Your task to perform on an android device: Search for the best rated headphones on Amazon Image 0: 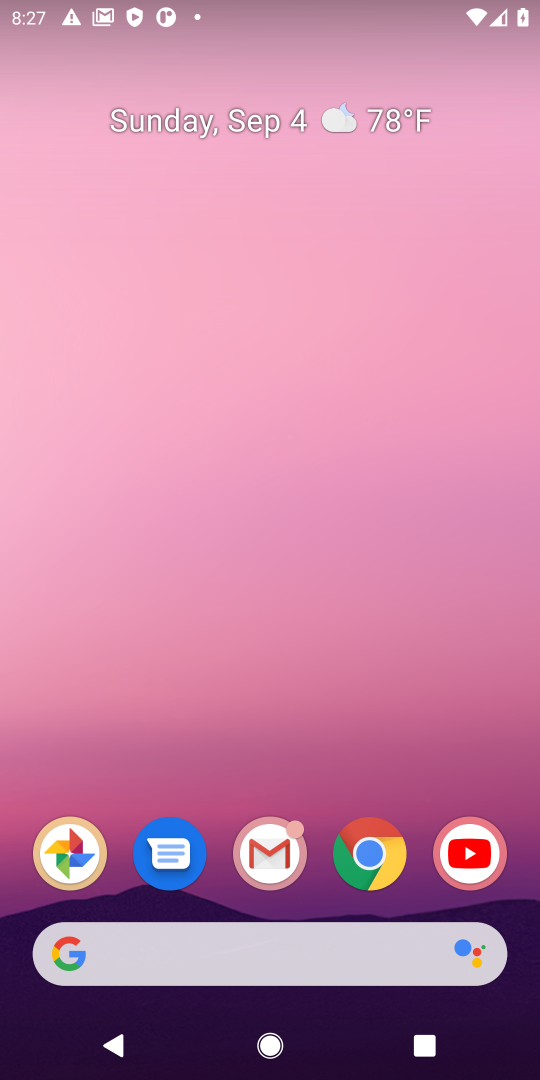
Step 0: drag from (317, 640) to (280, 9)
Your task to perform on an android device: Search for the best rated headphones on Amazon Image 1: 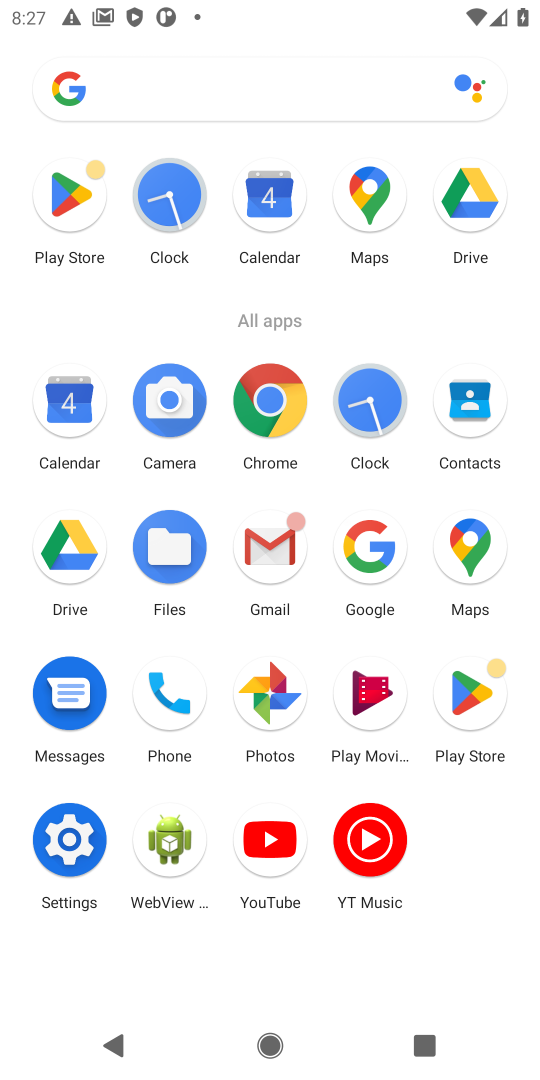
Step 1: click (273, 391)
Your task to perform on an android device: Search for the best rated headphones on Amazon Image 2: 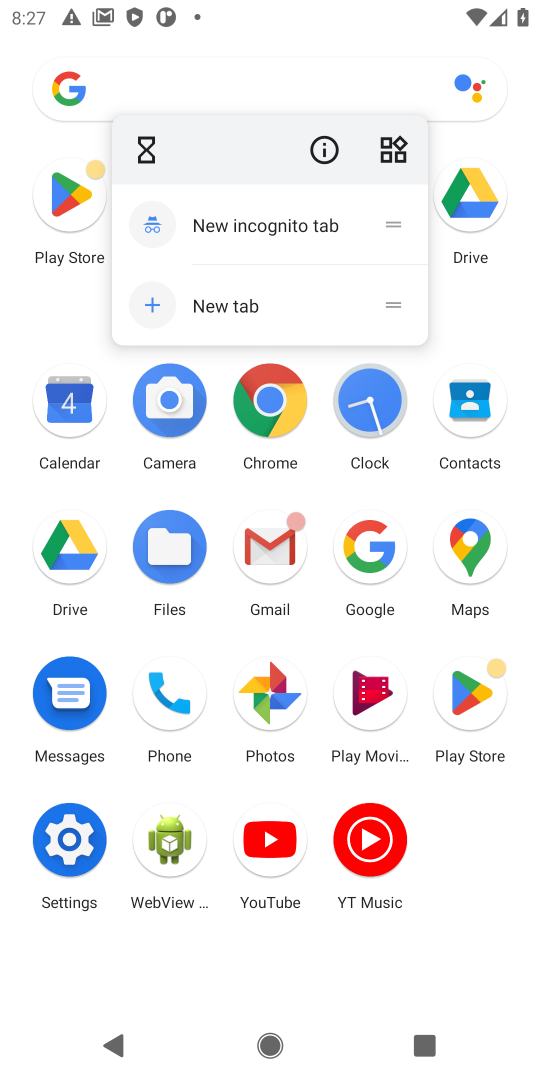
Step 2: click (263, 389)
Your task to perform on an android device: Search for the best rated headphones on Amazon Image 3: 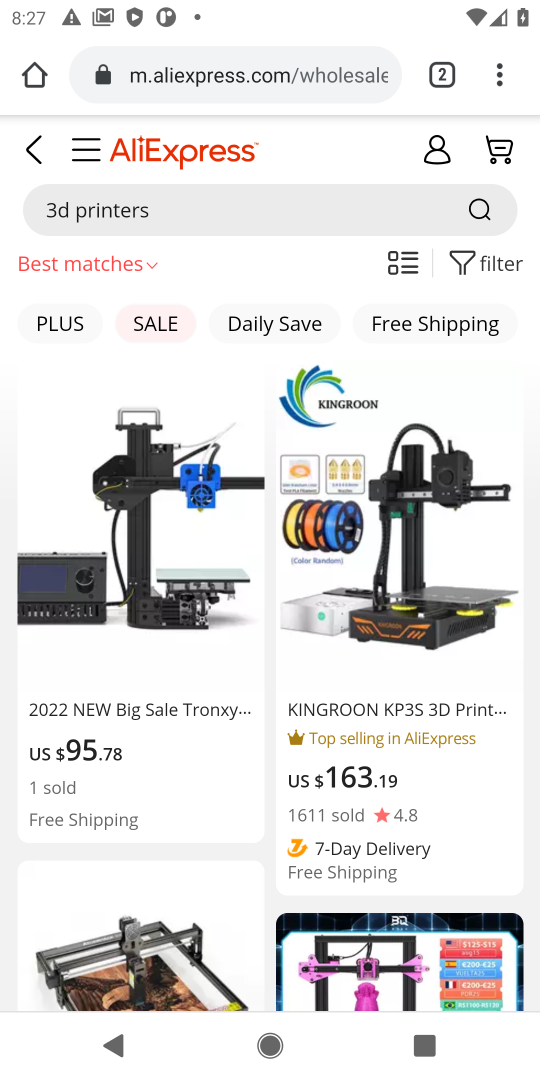
Step 3: click (281, 66)
Your task to perform on an android device: Search for the best rated headphones on Amazon Image 4: 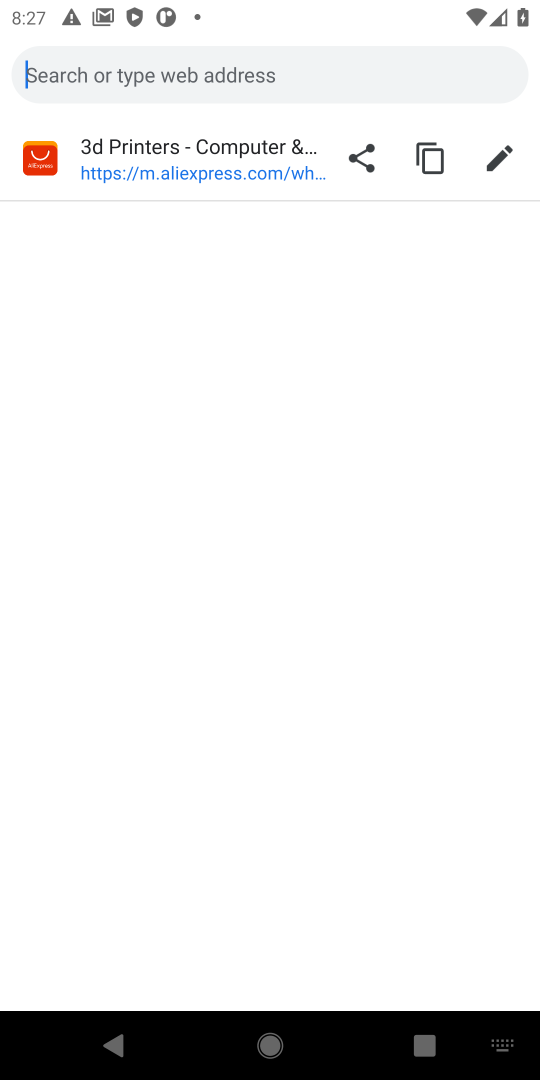
Step 4: type "best rated headphones on Amazon"
Your task to perform on an android device: Search for the best rated headphones on Amazon Image 5: 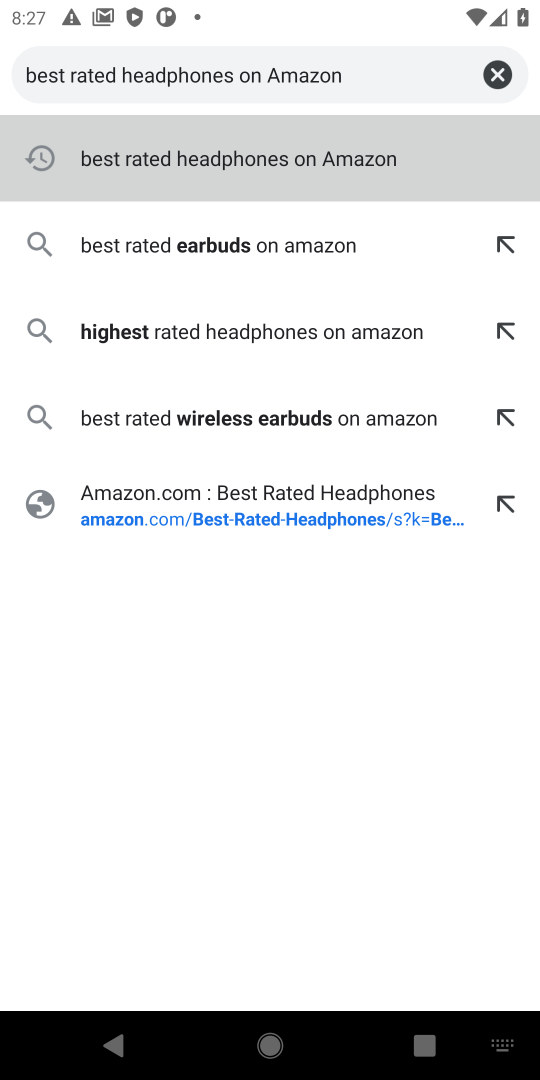
Step 5: click (157, 172)
Your task to perform on an android device: Search for the best rated headphones on Amazon Image 6: 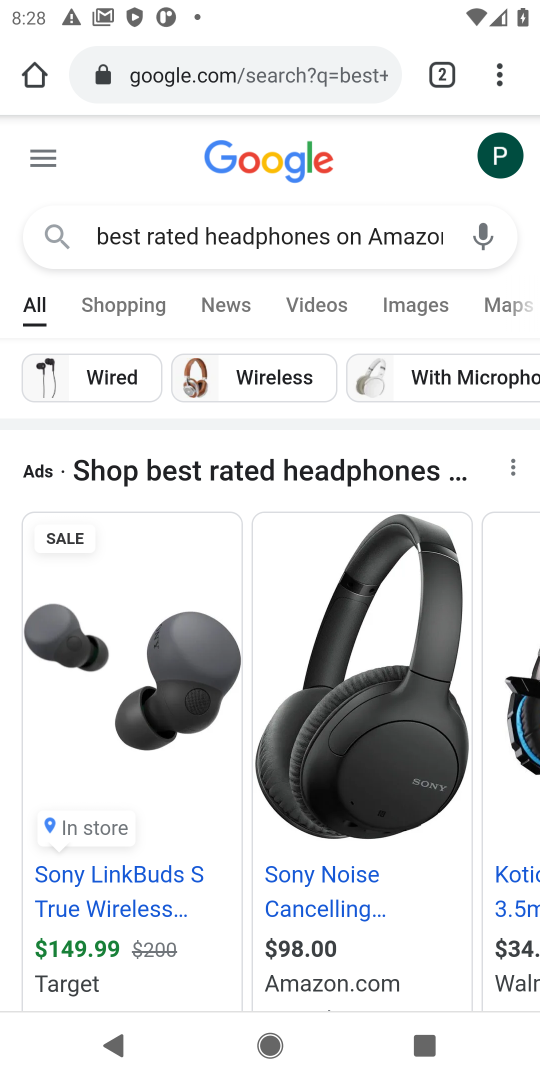
Step 6: drag from (247, 982) to (282, 436)
Your task to perform on an android device: Search for the best rated headphones on Amazon Image 7: 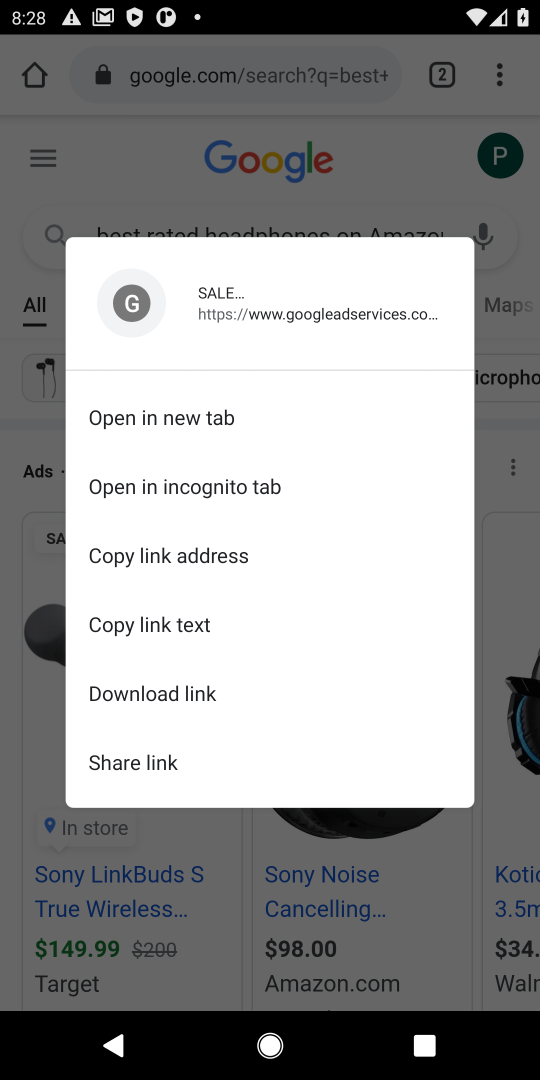
Step 7: click (48, 887)
Your task to perform on an android device: Search for the best rated headphones on Amazon Image 8: 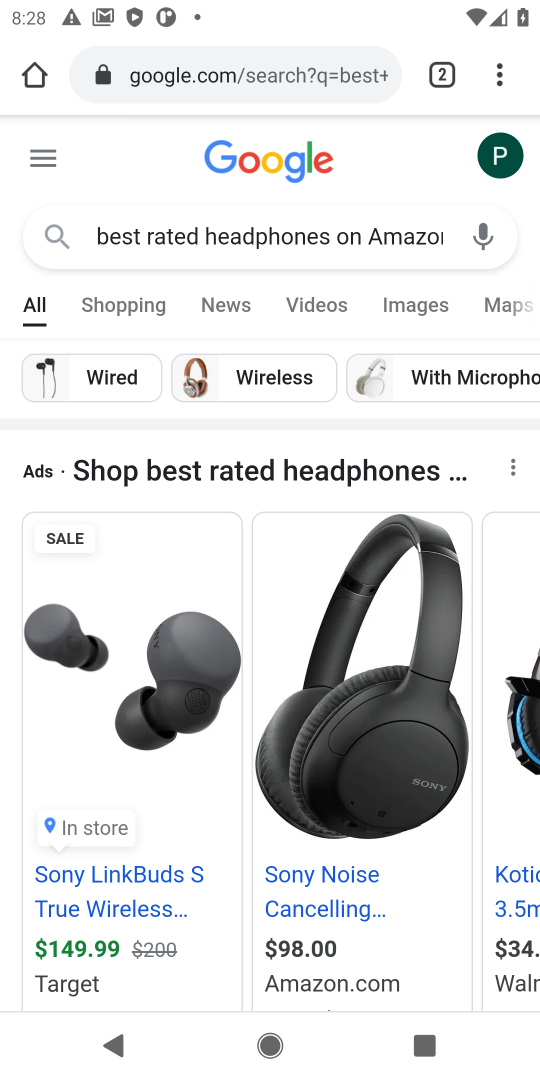
Step 8: drag from (245, 988) to (245, 460)
Your task to perform on an android device: Search for the best rated headphones on Amazon Image 9: 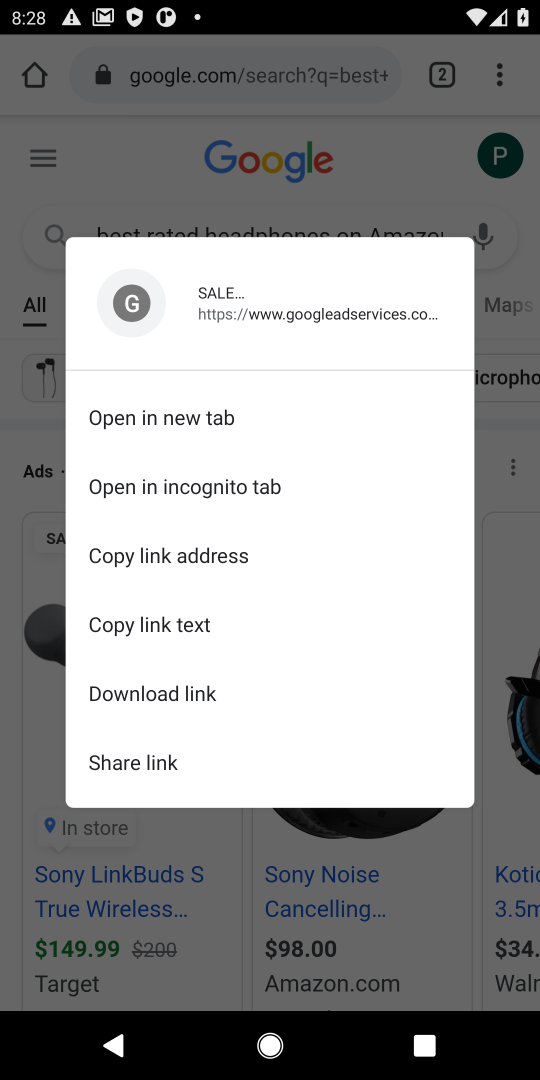
Step 9: click (3, 806)
Your task to perform on an android device: Search for the best rated headphones on Amazon Image 10: 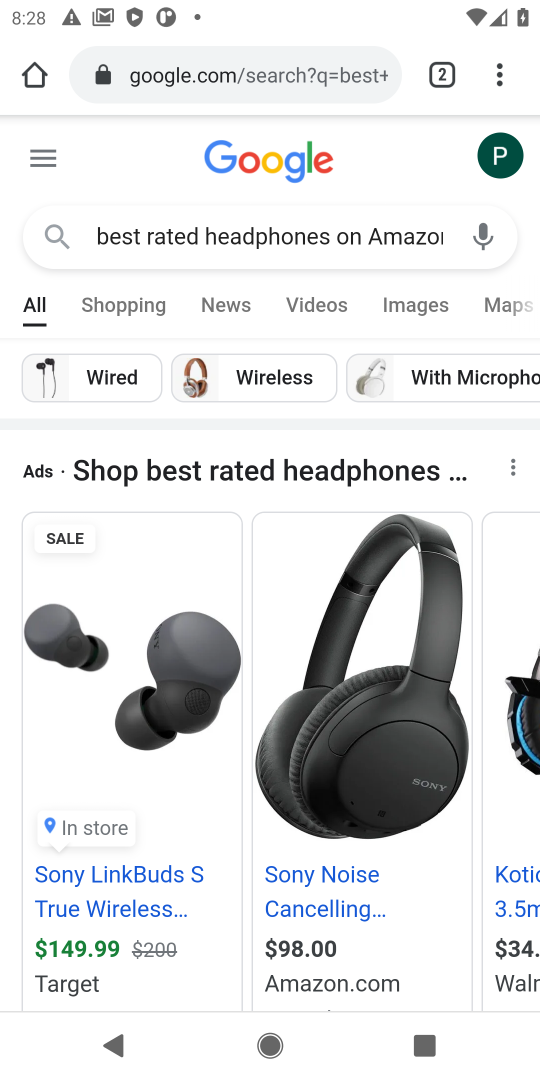
Step 10: drag from (254, 488) to (221, 90)
Your task to perform on an android device: Search for the best rated headphones on Amazon Image 11: 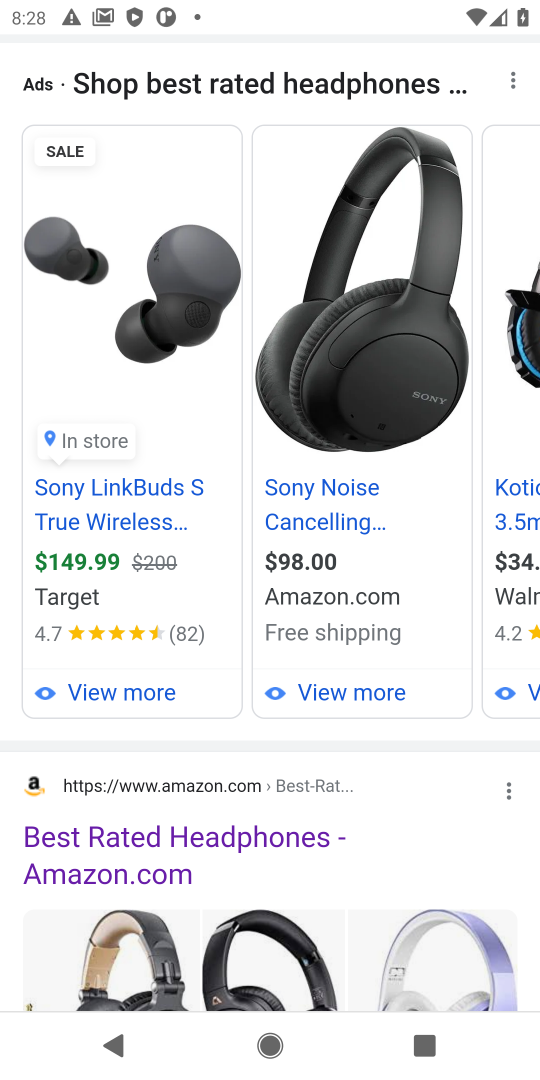
Step 11: drag from (256, 742) to (230, 307)
Your task to perform on an android device: Search for the best rated headphones on Amazon Image 12: 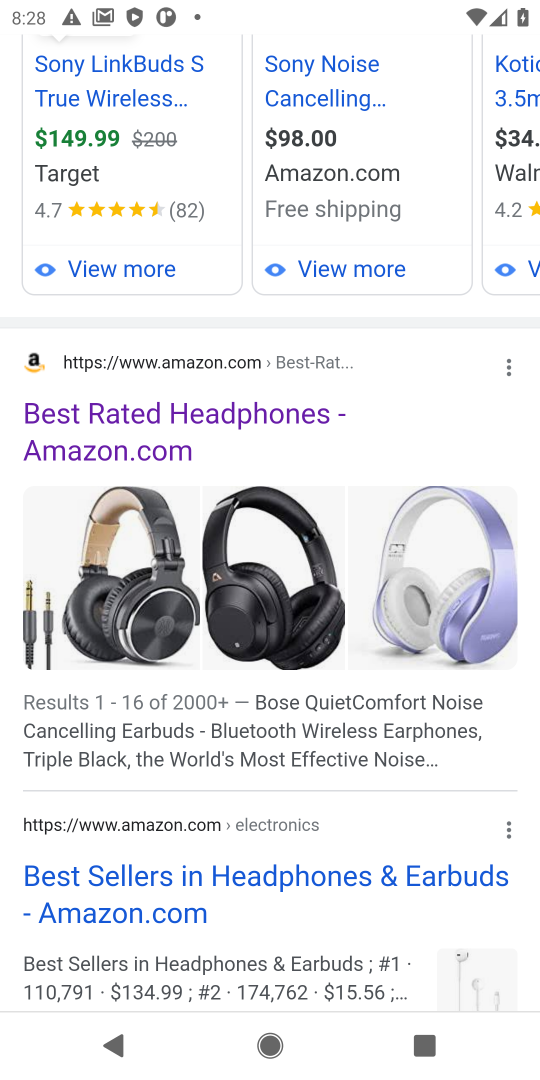
Step 12: click (215, 409)
Your task to perform on an android device: Search for the best rated headphones on Amazon Image 13: 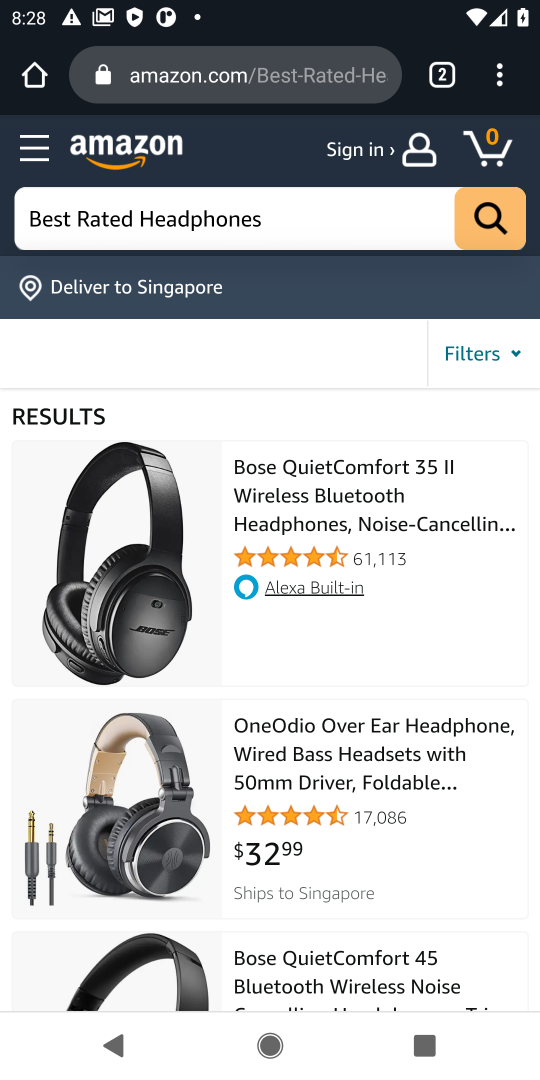
Step 13: drag from (373, 921) to (348, 429)
Your task to perform on an android device: Search for the best rated headphones on Amazon Image 14: 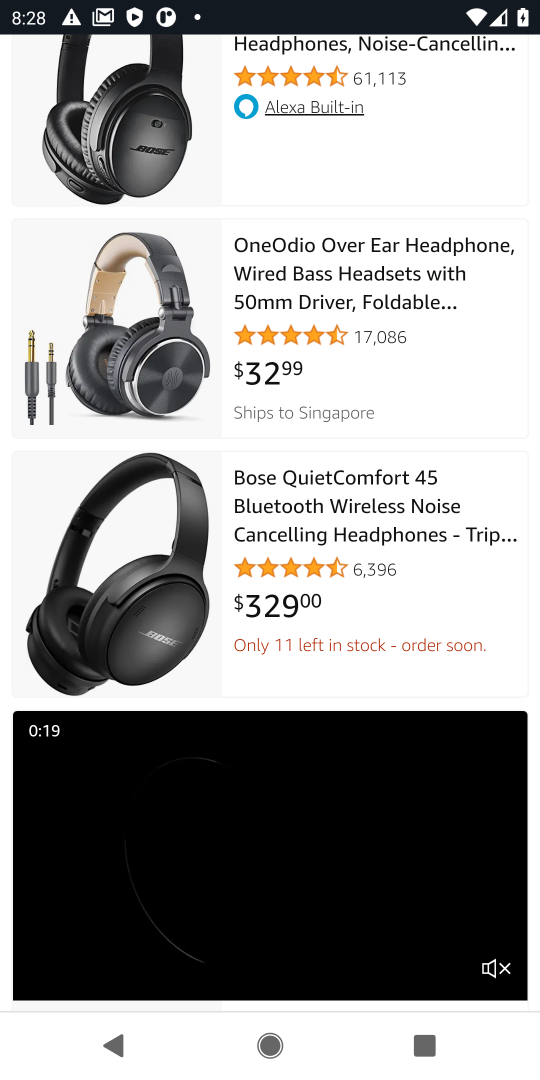
Step 14: drag from (337, 691) to (284, 96)
Your task to perform on an android device: Search for the best rated headphones on Amazon Image 15: 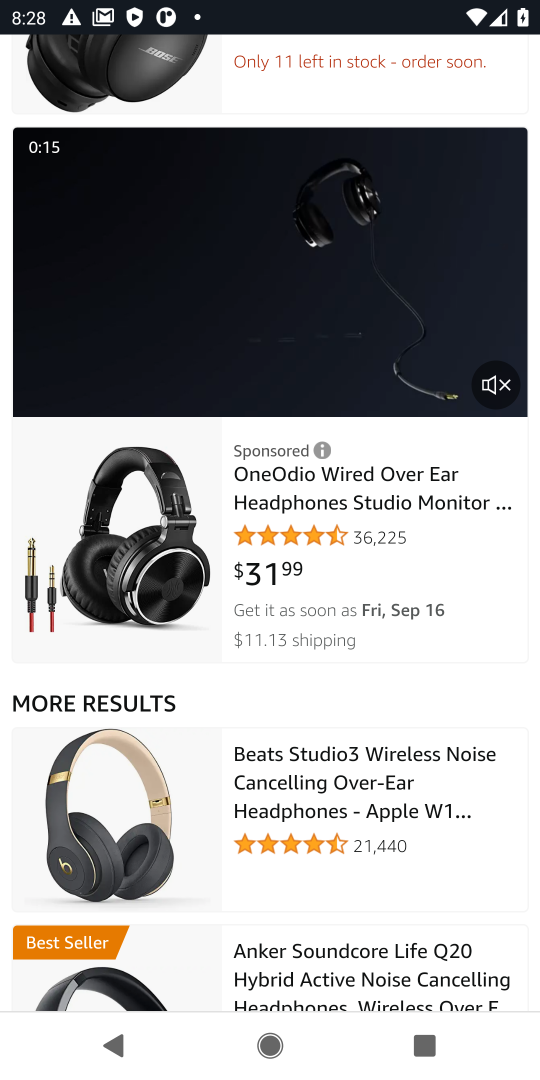
Step 15: drag from (221, 785) to (204, 358)
Your task to perform on an android device: Search for the best rated headphones on Amazon Image 16: 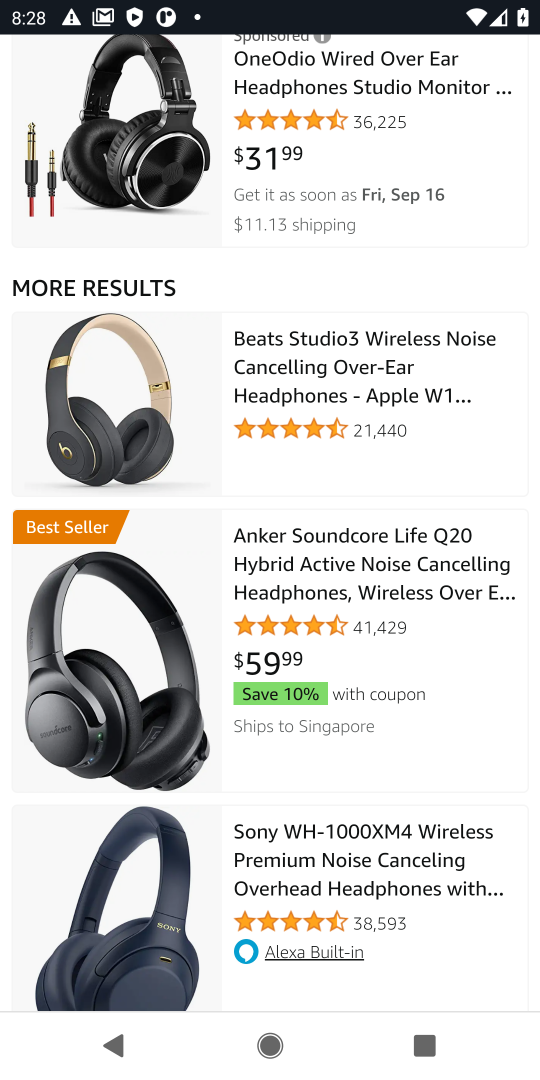
Step 16: drag from (240, 991) to (222, 323)
Your task to perform on an android device: Search for the best rated headphones on Amazon Image 17: 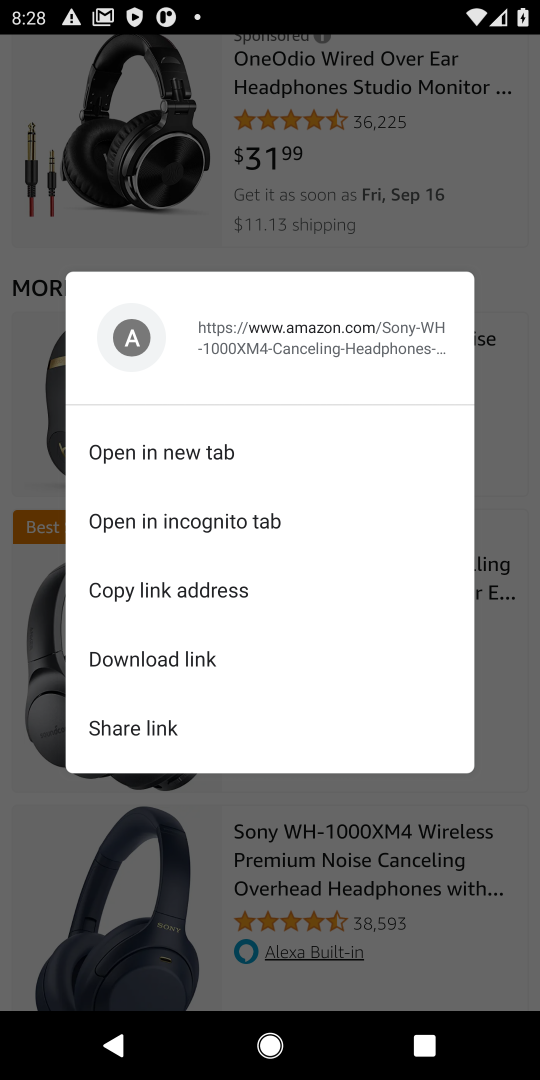
Step 17: click (129, 906)
Your task to perform on an android device: Search for the best rated headphones on Amazon Image 18: 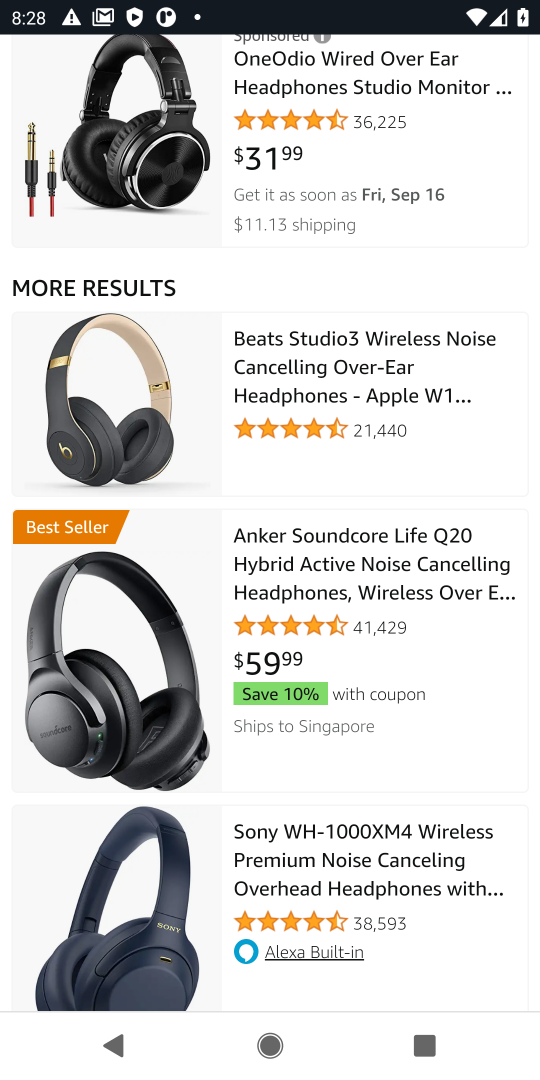
Step 18: task complete